Your task to perform on an android device: open app "Spotify: Music and Podcasts" (install if not already installed) and enter user name: "principled@inbox.com" and password: "arrests" Image 0: 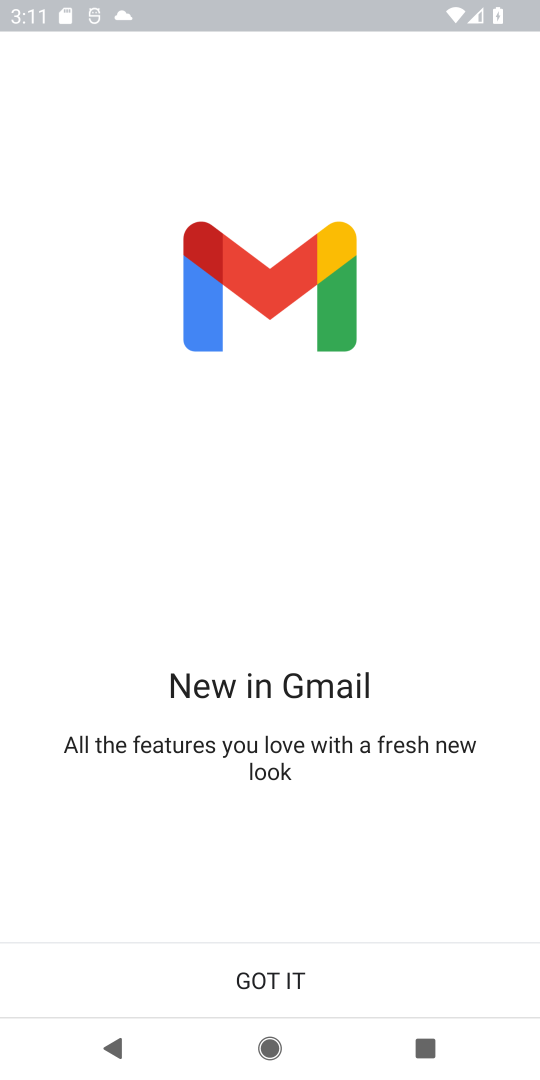
Step 0: press home button
Your task to perform on an android device: open app "Spotify: Music and Podcasts" (install if not already installed) and enter user name: "principled@inbox.com" and password: "arrests" Image 1: 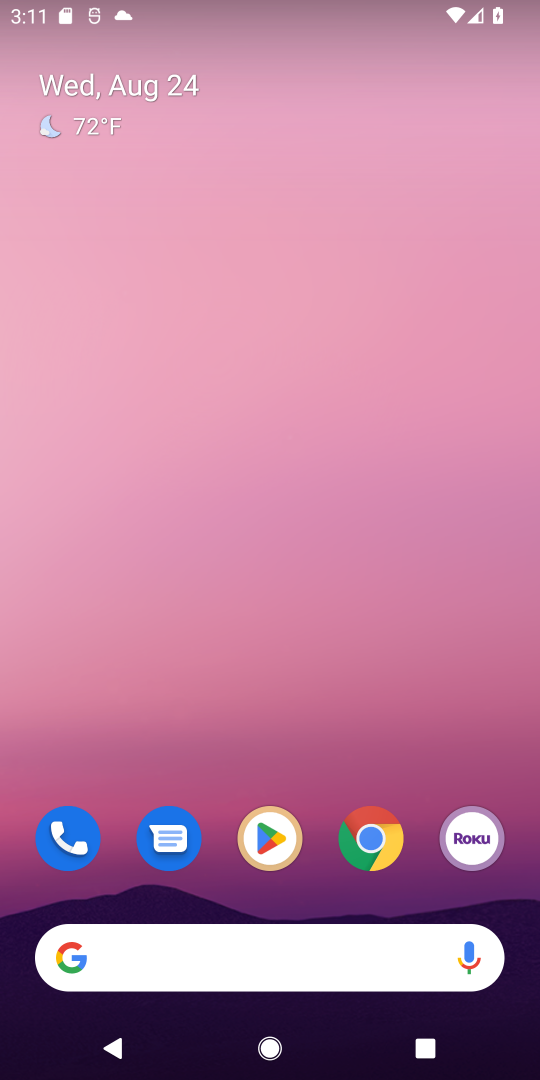
Step 1: drag from (269, 886) to (186, 38)
Your task to perform on an android device: open app "Spotify: Music and Podcasts" (install if not already installed) and enter user name: "principled@inbox.com" and password: "arrests" Image 2: 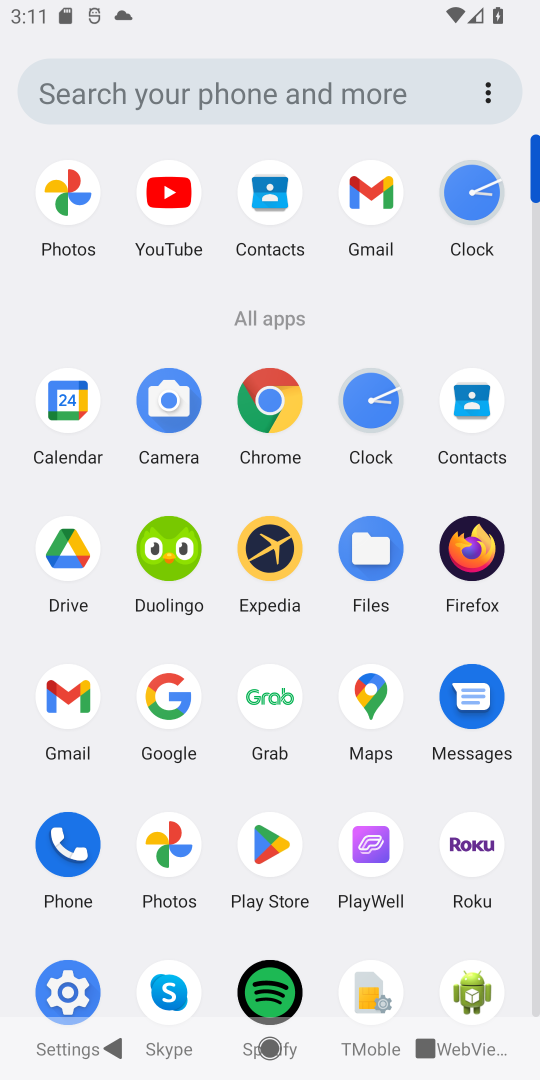
Step 2: click (265, 960)
Your task to perform on an android device: open app "Spotify: Music and Podcasts" (install if not already installed) and enter user name: "principled@inbox.com" and password: "arrests" Image 3: 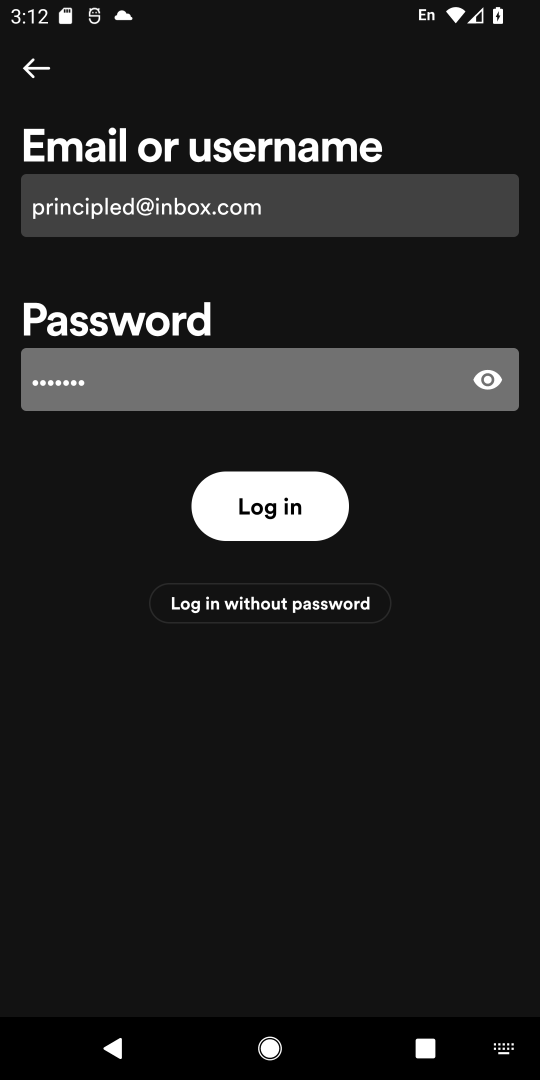
Step 3: task complete